Your task to perform on an android device: Is it going to rain this weekend? Image 0: 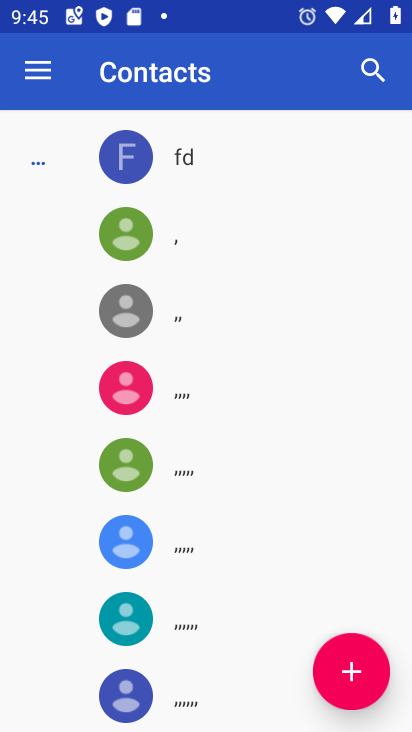
Step 0: press home button
Your task to perform on an android device: Is it going to rain this weekend? Image 1: 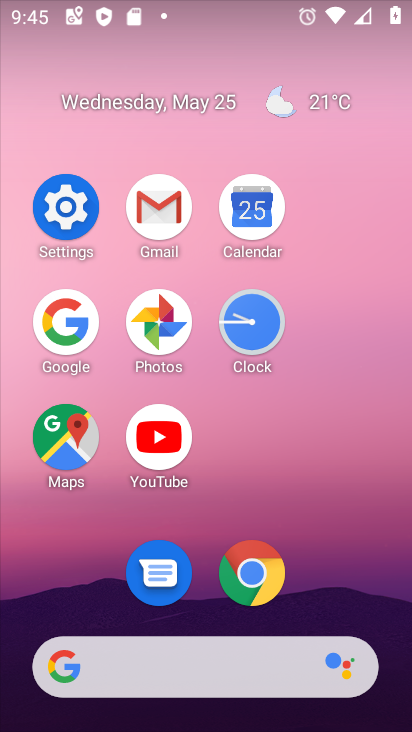
Step 1: click (266, 216)
Your task to perform on an android device: Is it going to rain this weekend? Image 2: 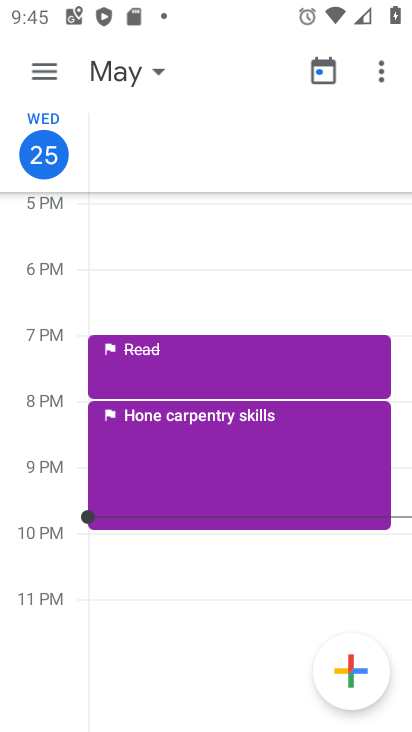
Step 2: press home button
Your task to perform on an android device: Is it going to rain this weekend? Image 3: 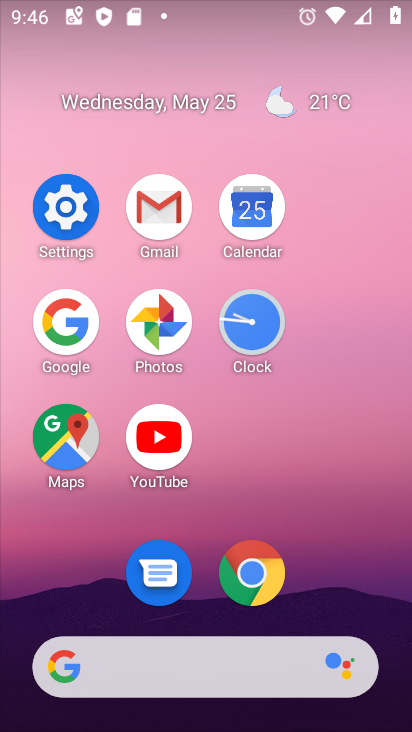
Step 3: click (69, 350)
Your task to perform on an android device: Is it going to rain this weekend? Image 4: 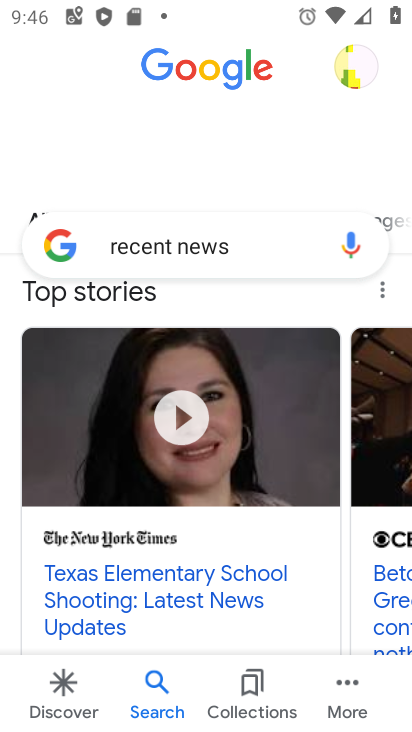
Step 4: click (275, 262)
Your task to perform on an android device: Is it going to rain this weekend? Image 5: 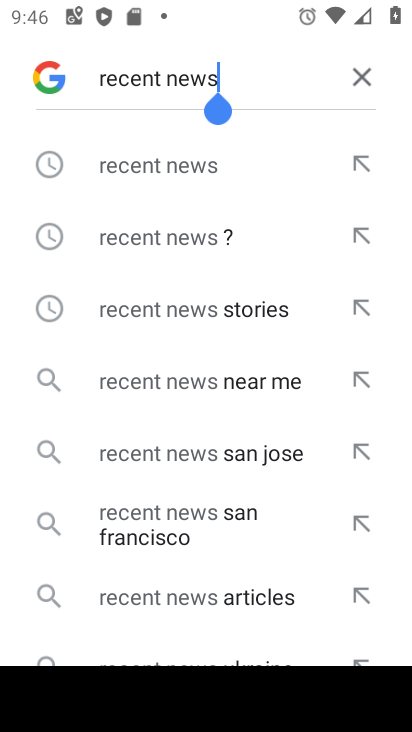
Step 5: click (347, 63)
Your task to perform on an android device: Is it going to rain this weekend? Image 6: 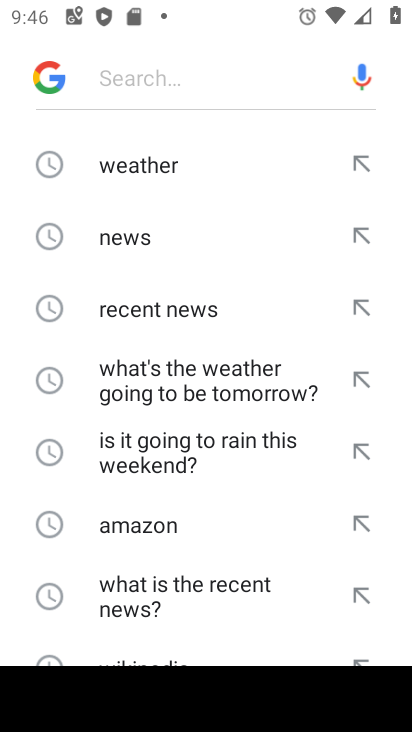
Step 6: click (178, 158)
Your task to perform on an android device: Is it going to rain this weekend? Image 7: 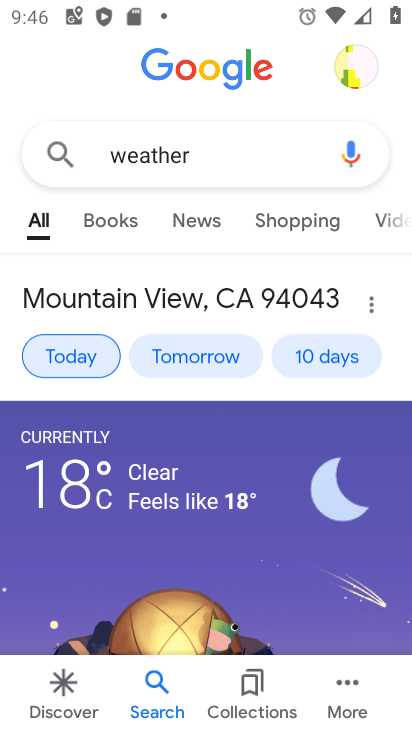
Step 7: click (363, 353)
Your task to perform on an android device: Is it going to rain this weekend? Image 8: 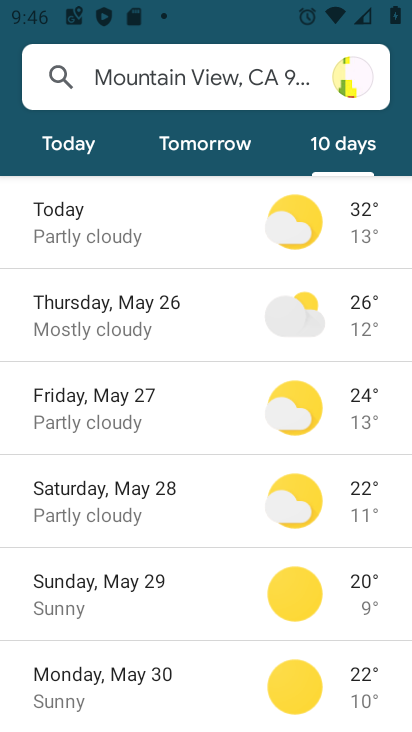
Step 8: click (156, 476)
Your task to perform on an android device: Is it going to rain this weekend? Image 9: 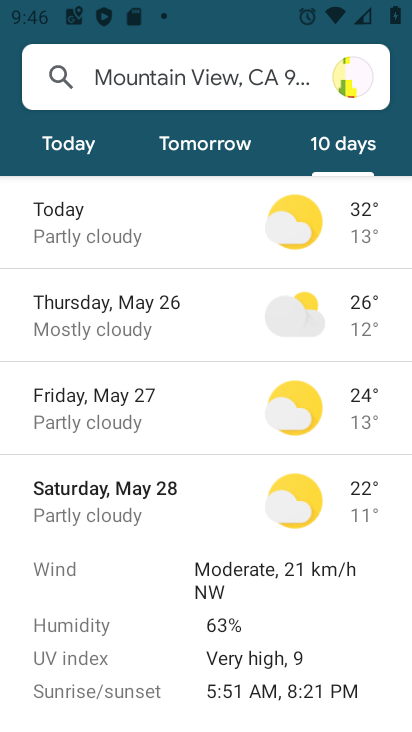
Step 9: task complete